Your task to perform on an android device: What's on my calendar tomorrow? Image 0: 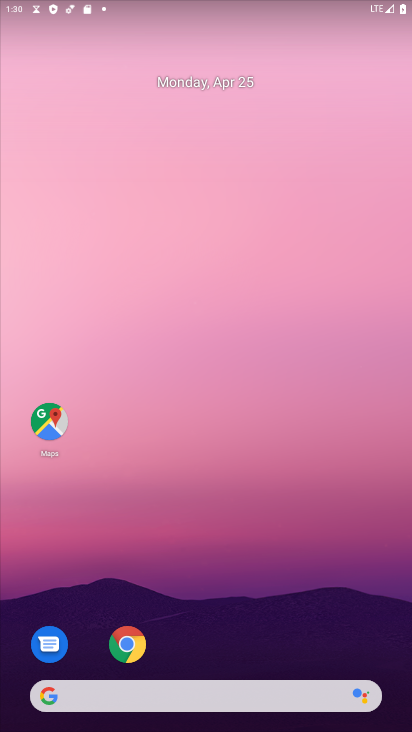
Step 0: drag from (359, 649) to (372, 129)
Your task to perform on an android device: What's on my calendar tomorrow? Image 1: 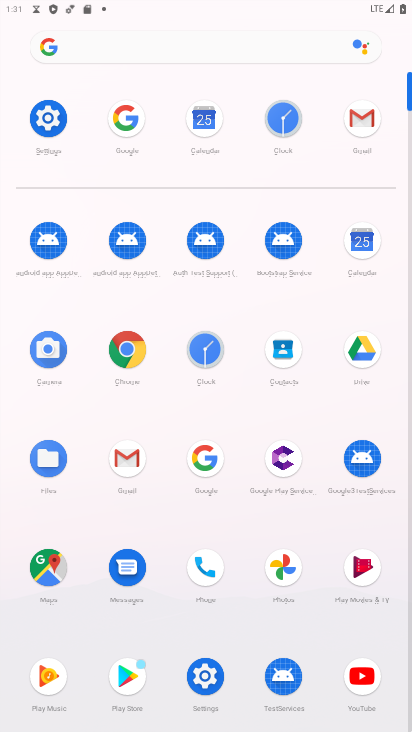
Step 1: click (208, 129)
Your task to perform on an android device: What's on my calendar tomorrow? Image 2: 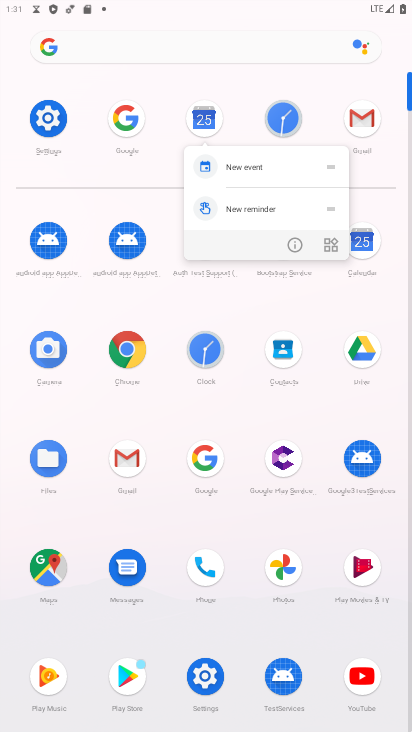
Step 2: click (201, 118)
Your task to perform on an android device: What's on my calendar tomorrow? Image 3: 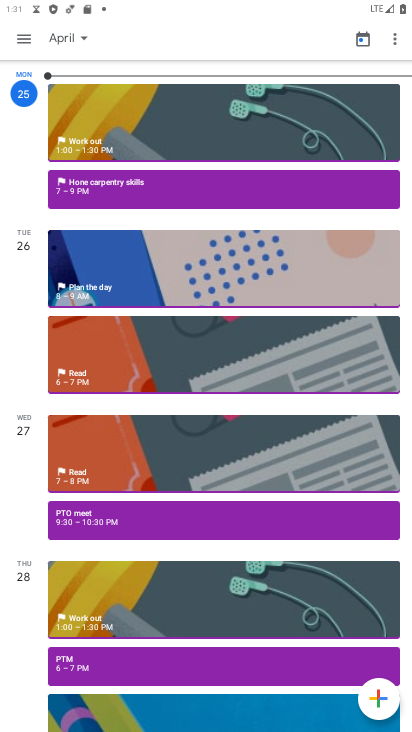
Step 3: click (159, 354)
Your task to perform on an android device: What's on my calendar tomorrow? Image 4: 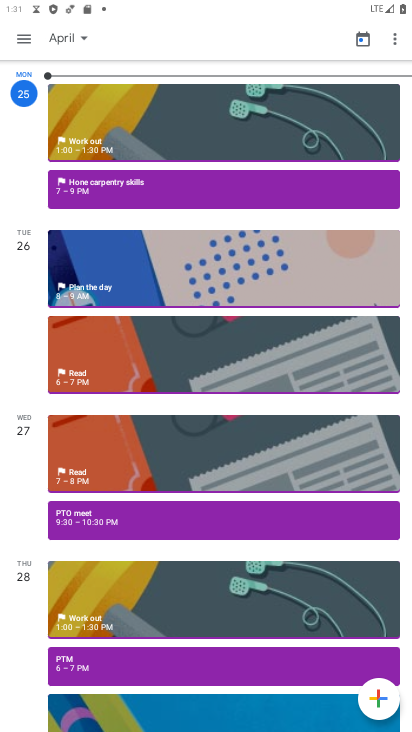
Step 4: click (132, 339)
Your task to perform on an android device: What's on my calendar tomorrow? Image 5: 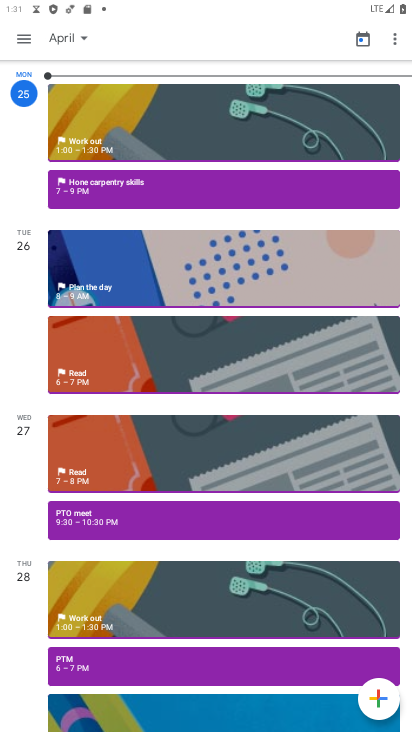
Step 5: click (146, 346)
Your task to perform on an android device: What's on my calendar tomorrow? Image 6: 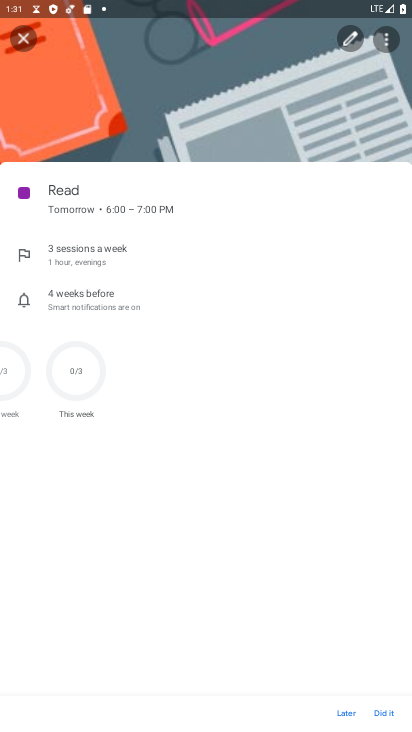
Step 6: task complete